Your task to perform on an android device: toggle data saver in the chrome app Image 0: 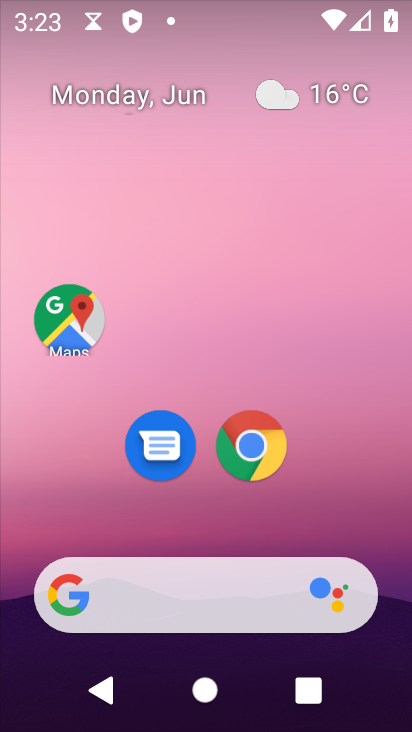
Step 0: click (219, 460)
Your task to perform on an android device: toggle data saver in the chrome app Image 1: 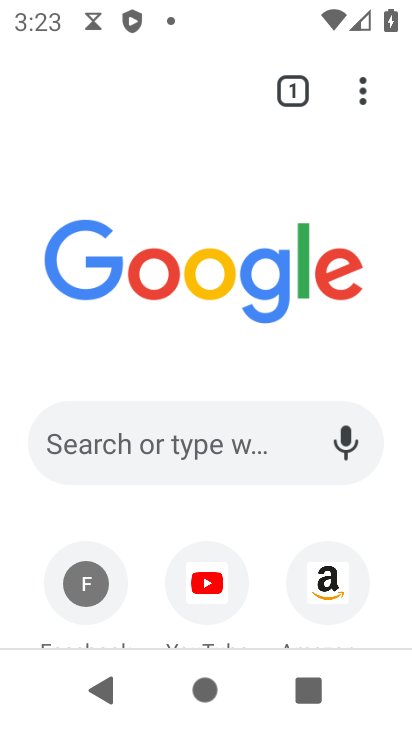
Step 1: drag from (366, 106) to (245, 478)
Your task to perform on an android device: toggle data saver in the chrome app Image 2: 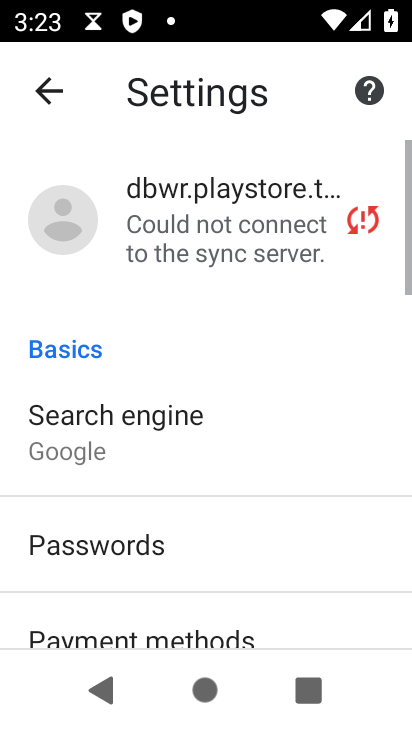
Step 2: drag from (152, 639) to (249, 188)
Your task to perform on an android device: toggle data saver in the chrome app Image 3: 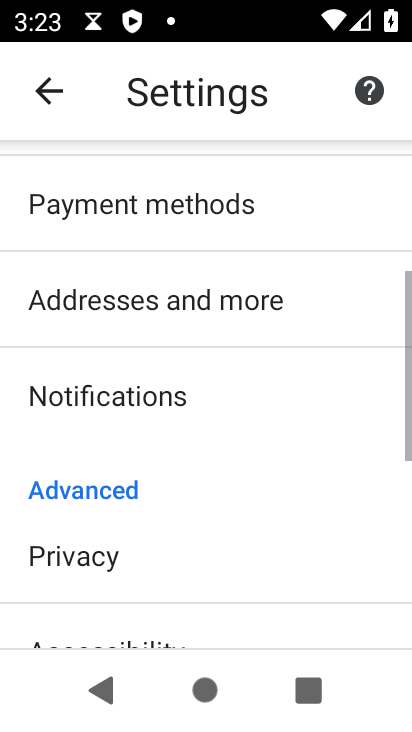
Step 3: drag from (211, 604) to (317, 269)
Your task to perform on an android device: toggle data saver in the chrome app Image 4: 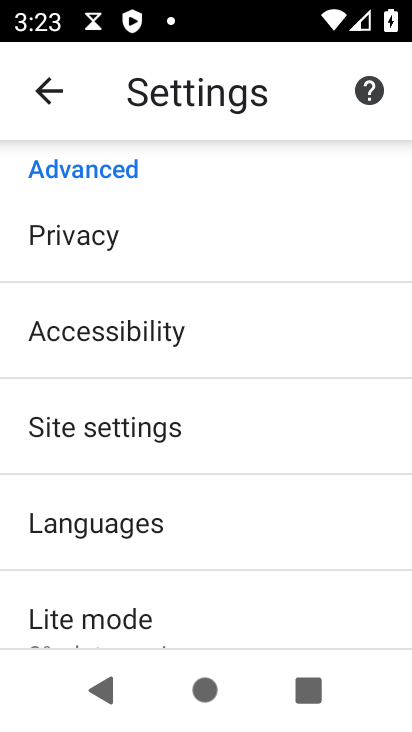
Step 4: drag from (207, 651) to (296, 240)
Your task to perform on an android device: toggle data saver in the chrome app Image 5: 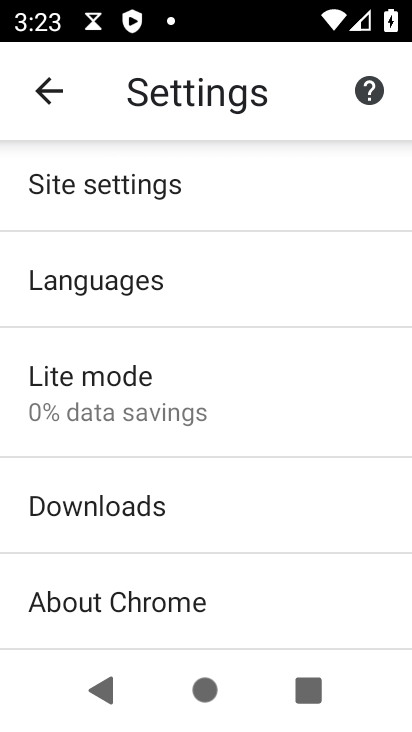
Step 5: click (234, 413)
Your task to perform on an android device: toggle data saver in the chrome app Image 6: 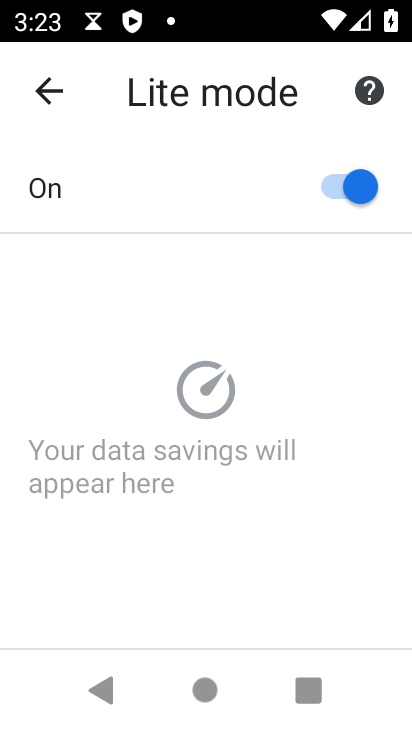
Step 6: click (327, 186)
Your task to perform on an android device: toggle data saver in the chrome app Image 7: 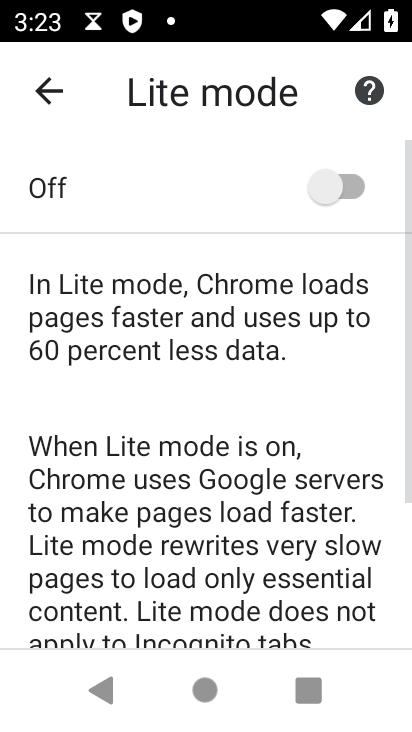
Step 7: task complete